Your task to perform on an android device: move a message to another label in the gmail app Image 0: 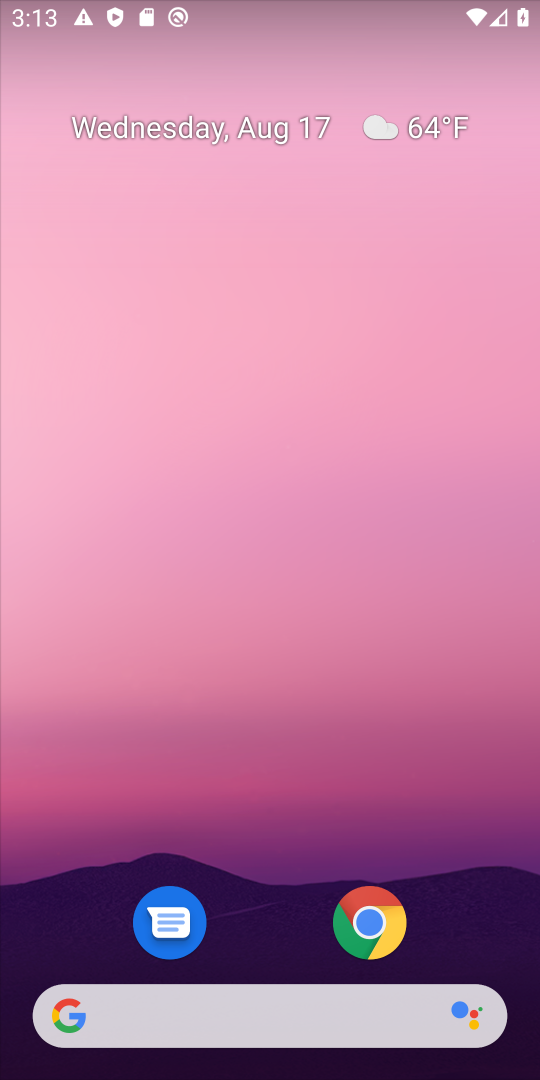
Step 0: drag from (304, 963) to (309, 23)
Your task to perform on an android device: move a message to another label in the gmail app Image 1: 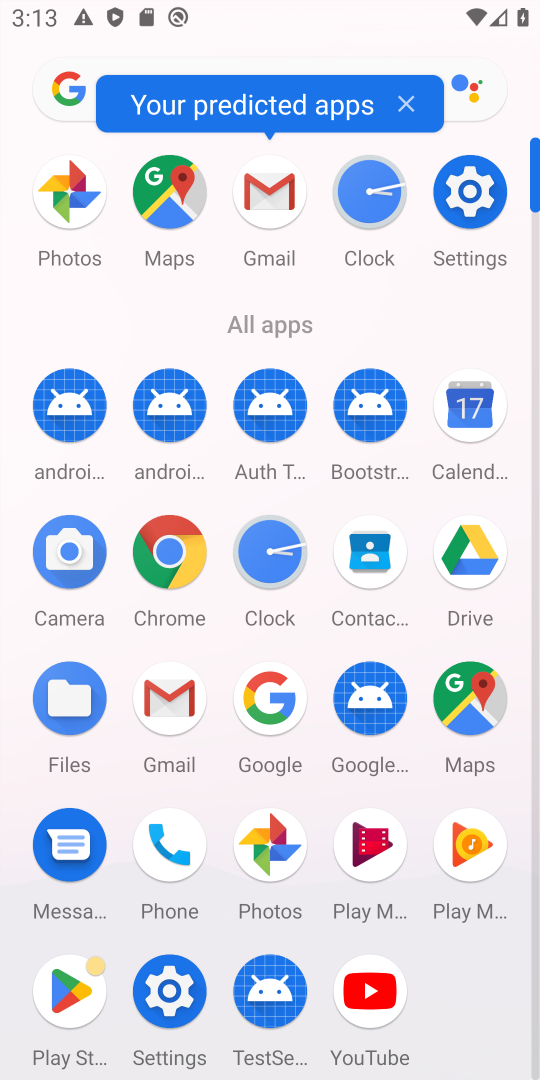
Step 1: click (267, 207)
Your task to perform on an android device: move a message to another label in the gmail app Image 2: 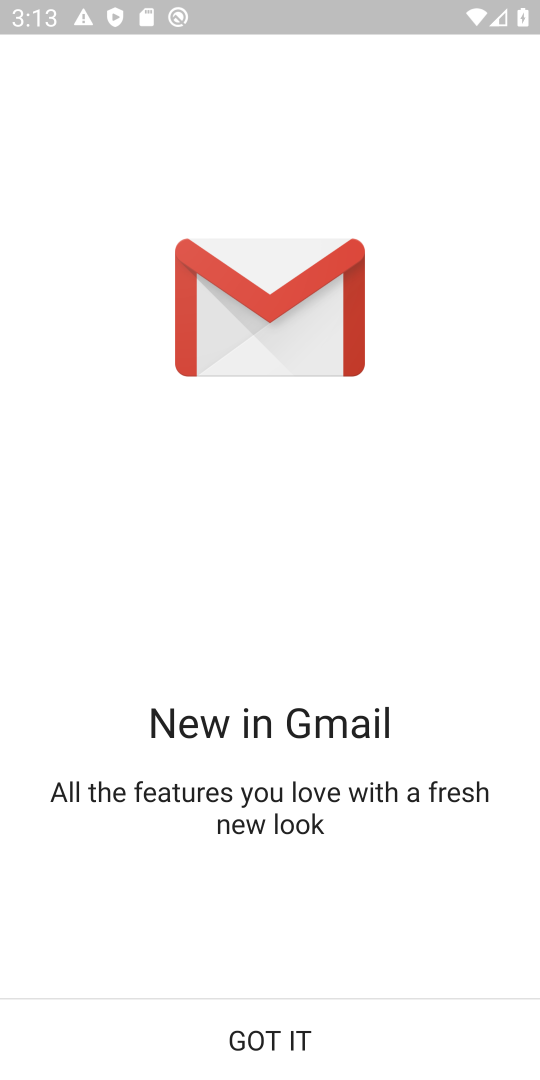
Step 2: click (304, 1027)
Your task to perform on an android device: move a message to another label in the gmail app Image 3: 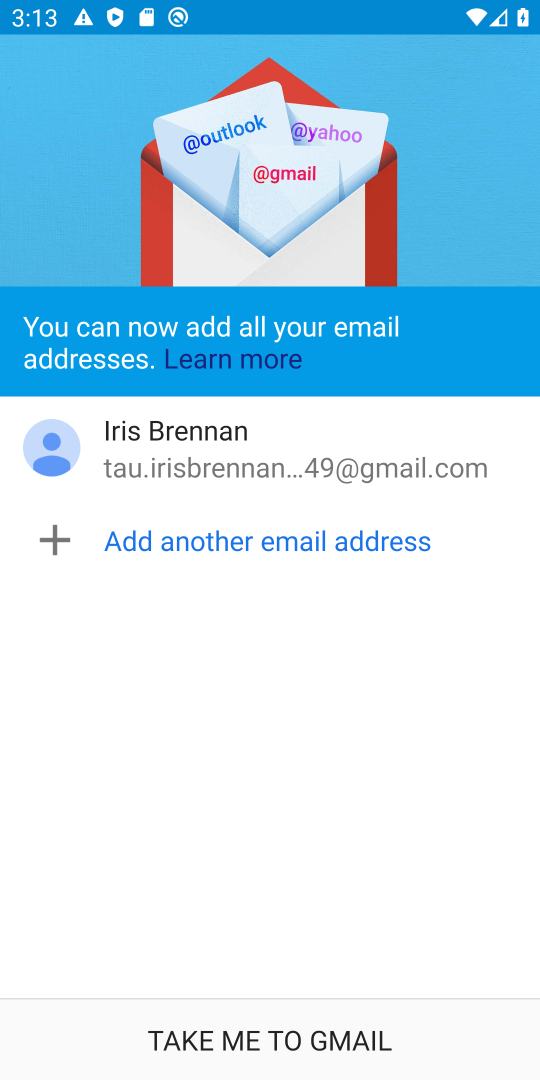
Step 3: click (304, 1027)
Your task to perform on an android device: move a message to another label in the gmail app Image 4: 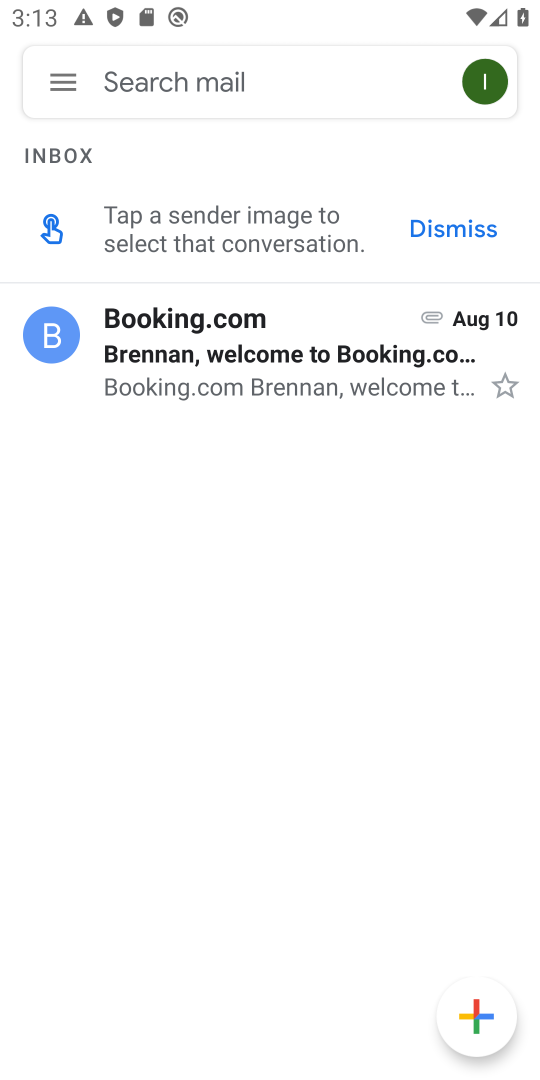
Step 4: click (58, 342)
Your task to perform on an android device: move a message to another label in the gmail app Image 5: 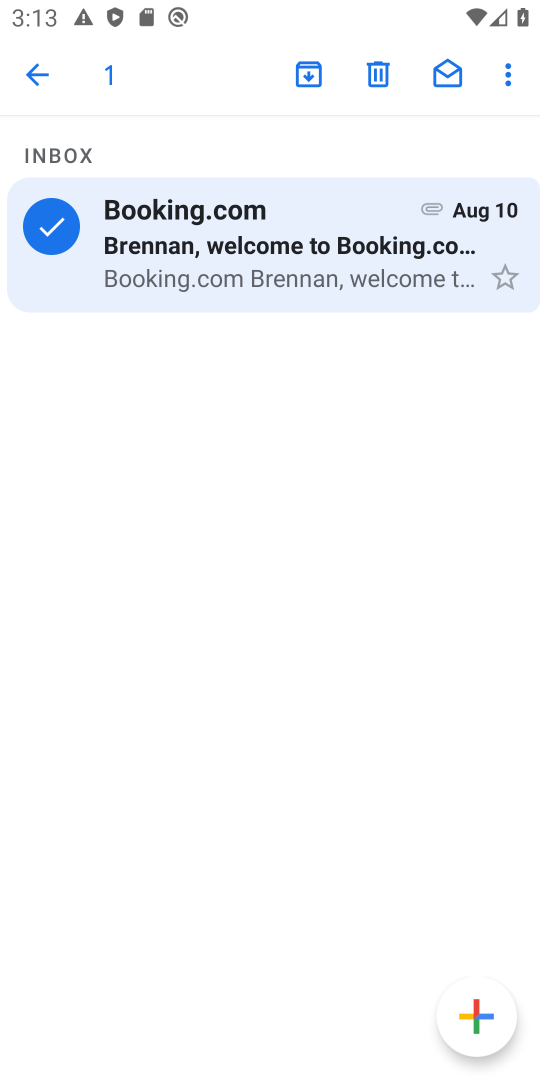
Step 5: click (520, 65)
Your task to perform on an android device: move a message to another label in the gmail app Image 6: 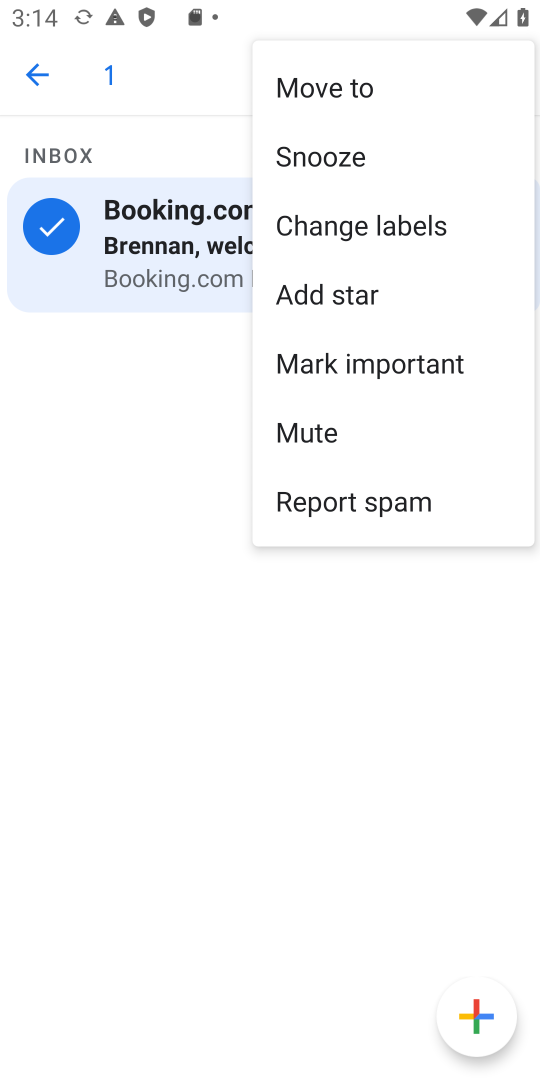
Step 6: click (325, 216)
Your task to perform on an android device: move a message to another label in the gmail app Image 7: 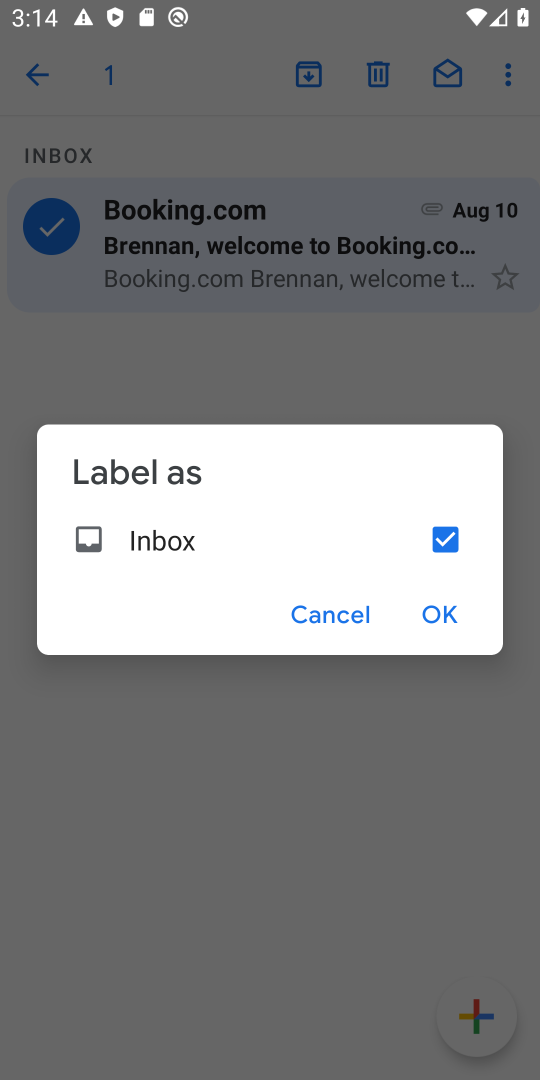
Step 7: click (453, 614)
Your task to perform on an android device: move a message to another label in the gmail app Image 8: 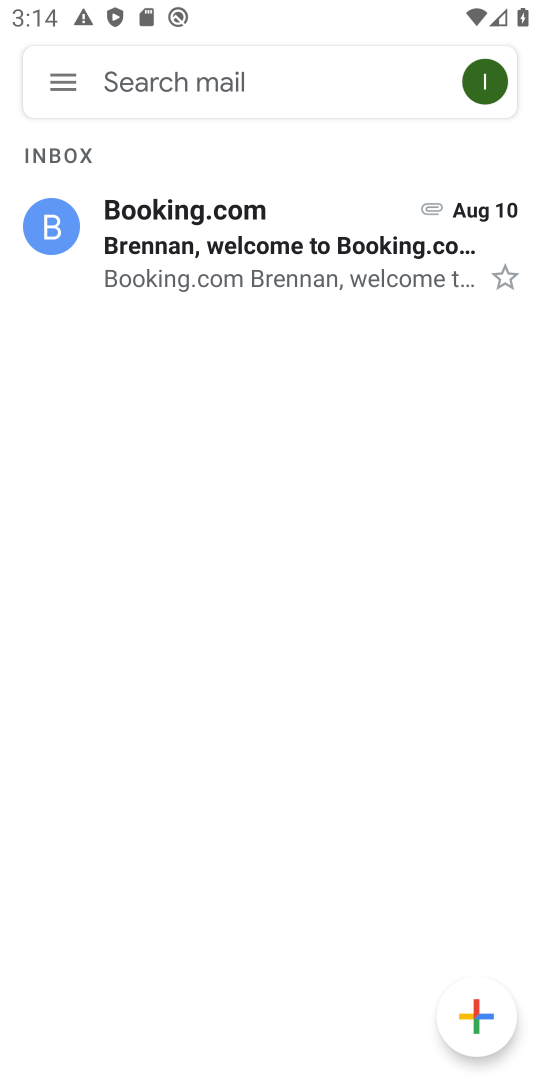
Step 8: task complete